Your task to perform on an android device: Go to notification settings Image 0: 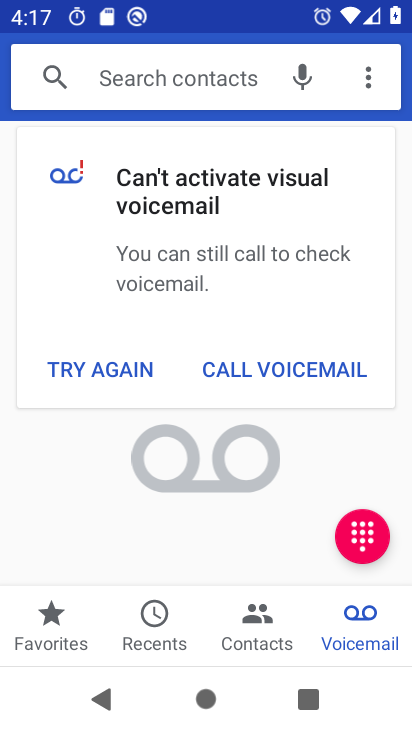
Step 0: press home button
Your task to perform on an android device: Go to notification settings Image 1: 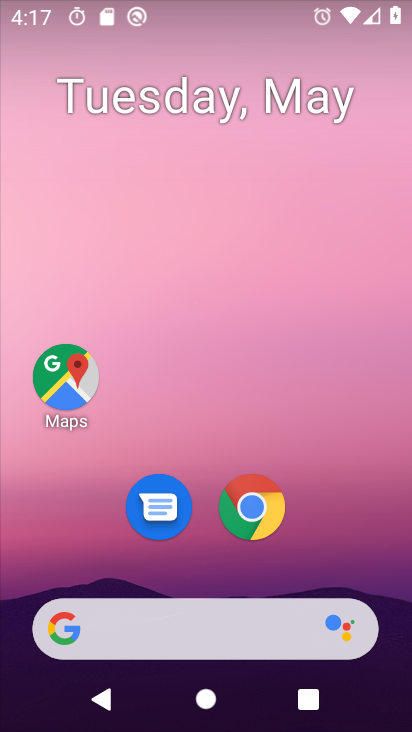
Step 1: drag from (209, 576) to (311, 66)
Your task to perform on an android device: Go to notification settings Image 2: 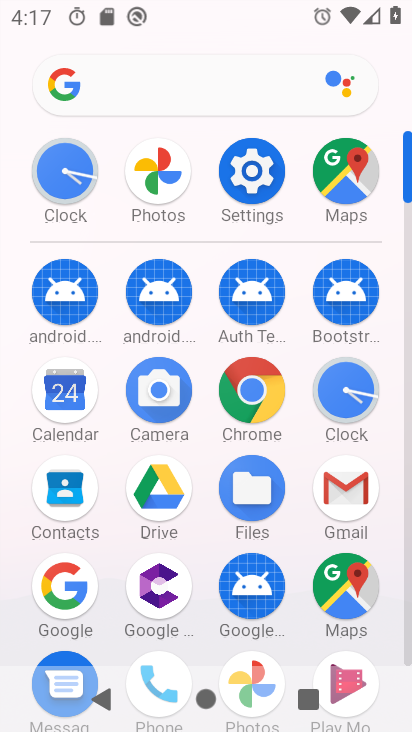
Step 2: click (255, 167)
Your task to perform on an android device: Go to notification settings Image 3: 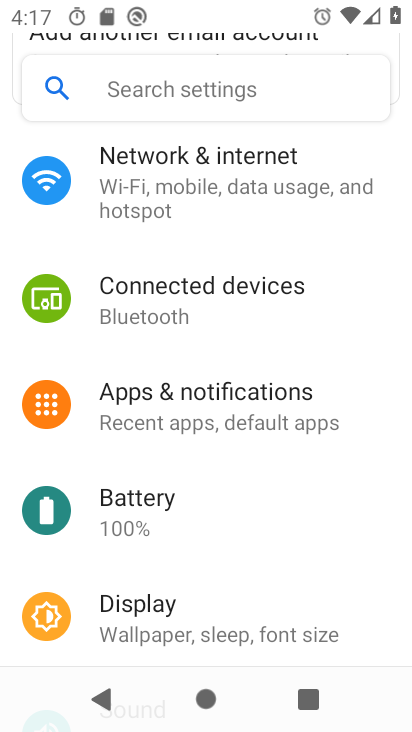
Step 3: click (113, 414)
Your task to perform on an android device: Go to notification settings Image 4: 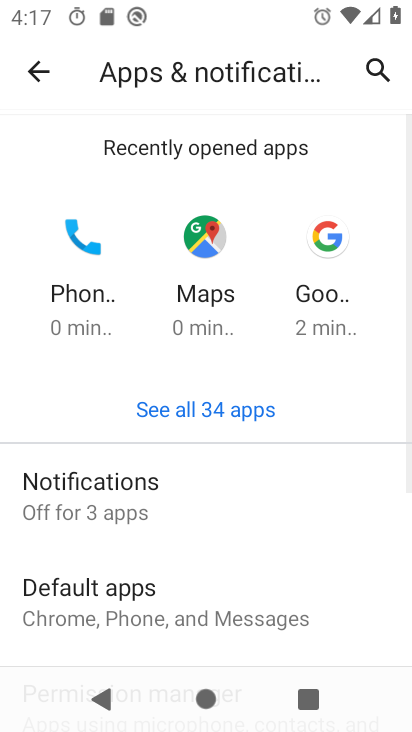
Step 4: click (65, 503)
Your task to perform on an android device: Go to notification settings Image 5: 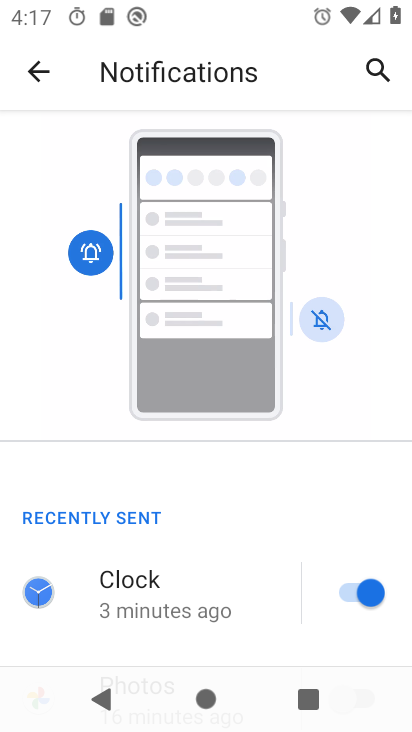
Step 5: task complete